Your task to perform on an android device: What's the weather? Image 0: 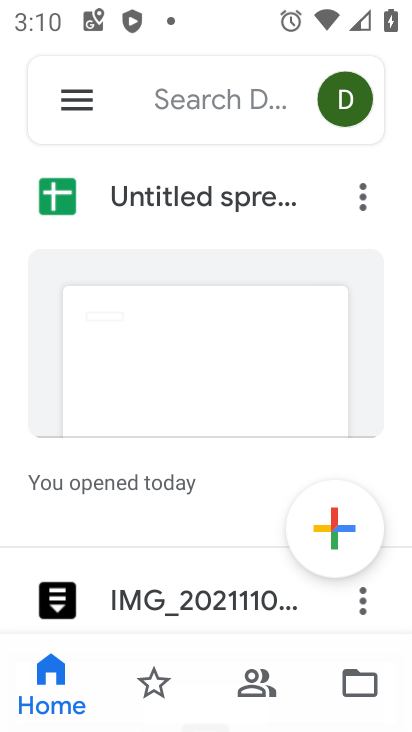
Step 0: press home button
Your task to perform on an android device: What's the weather? Image 1: 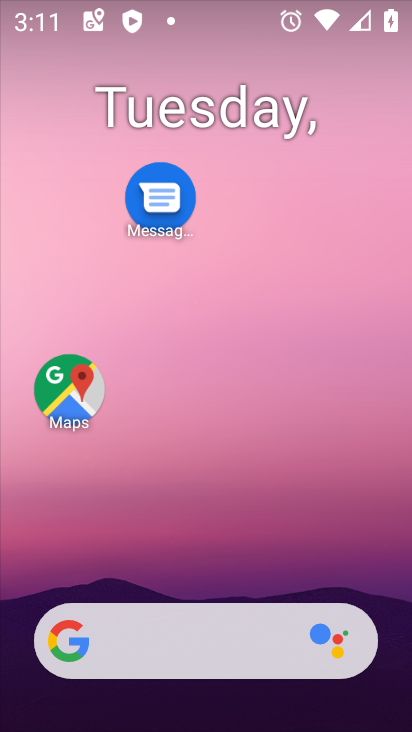
Step 1: drag from (156, 567) to (209, 72)
Your task to perform on an android device: What's the weather? Image 2: 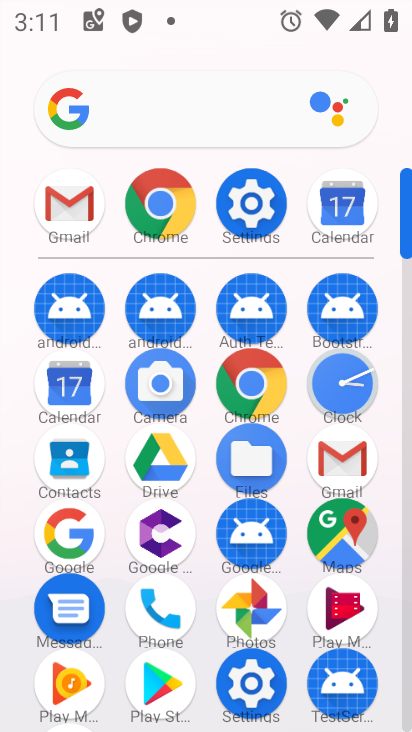
Step 2: click (71, 541)
Your task to perform on an android device: What's the weather? Image 3: 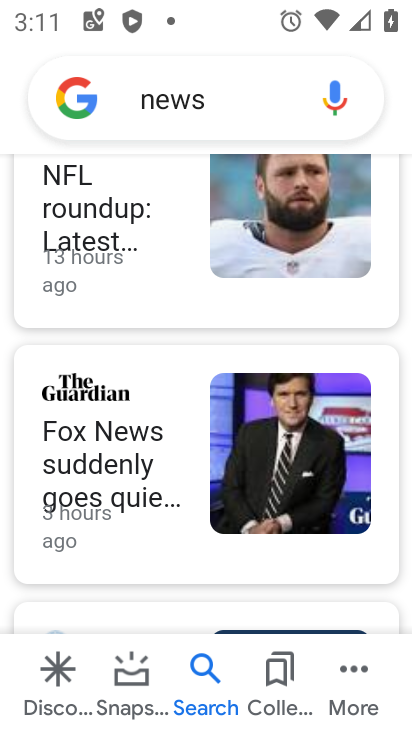
Step 3: click (242, 114)
Your task to perform on an android device: What's the weather? Image 4: 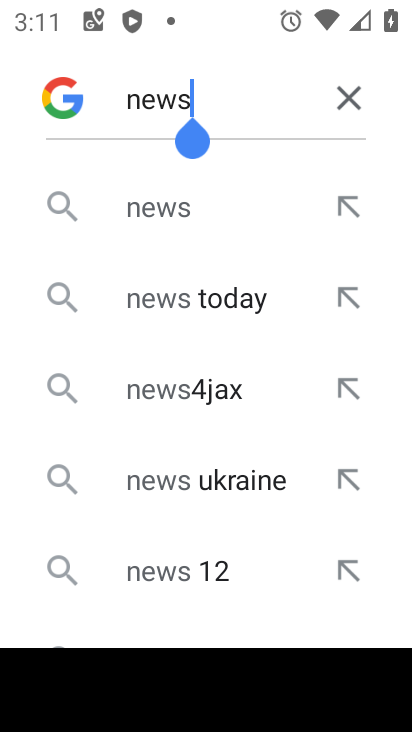
Step 4: click (342, 94)
Your task to perform on an android device: What's the weather? Image 5: 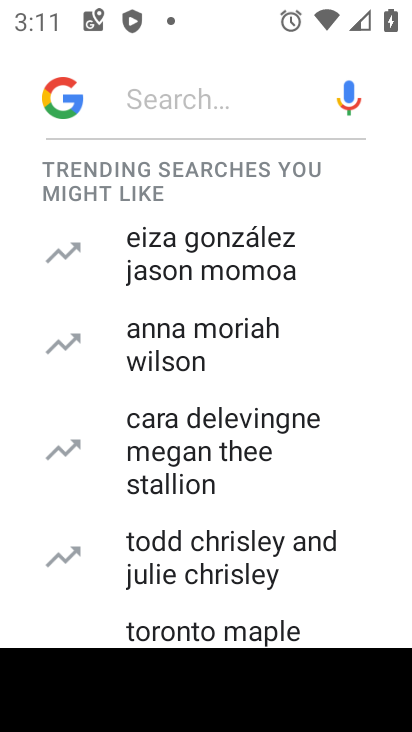
Step 5: type "weather"
Your task to perform on an android device: What's the weather? Image 6: 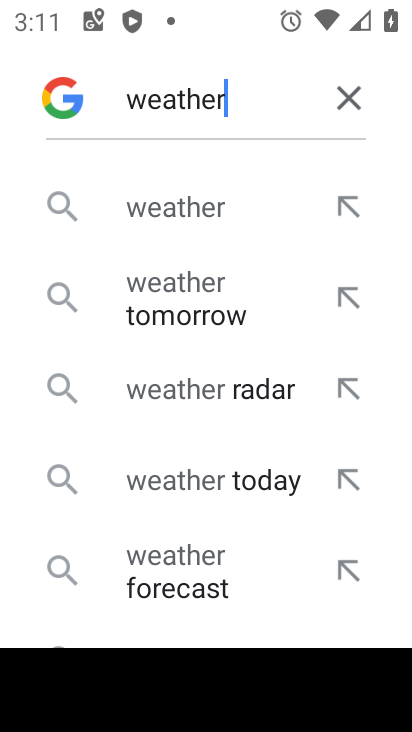
Step 6: click (148, 214)
Your task to perform on an android device: What's the weather? Image 7: 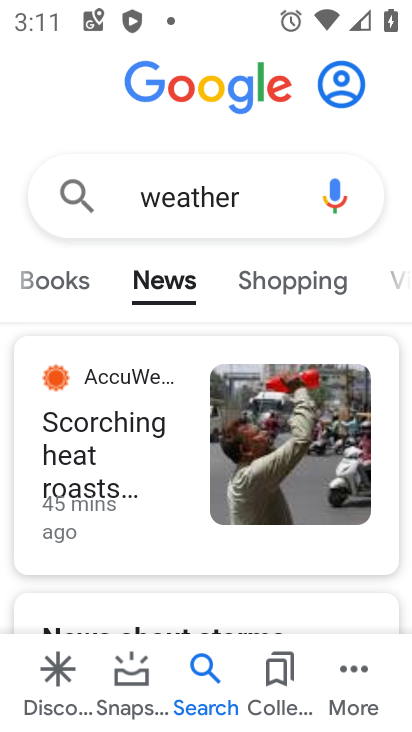
Step 7: drag from (58, 272) to (294, 275)
Your task to perform on an android device: What's the weather? Image 8: 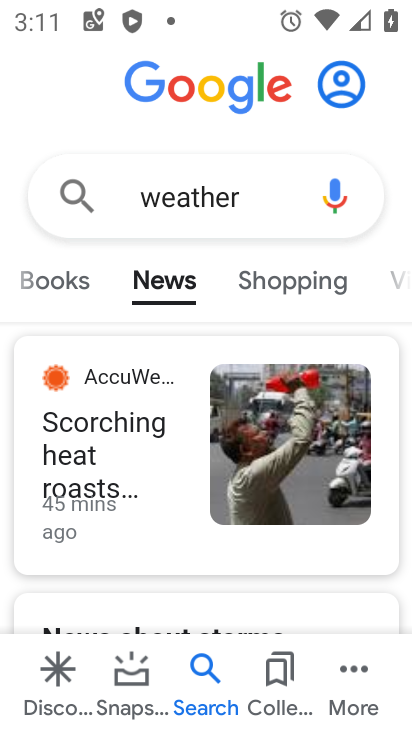
Step 8: drag from (46, 280) to (282, 287)
Your task to perform on an android device: What's the weather? Image 9: 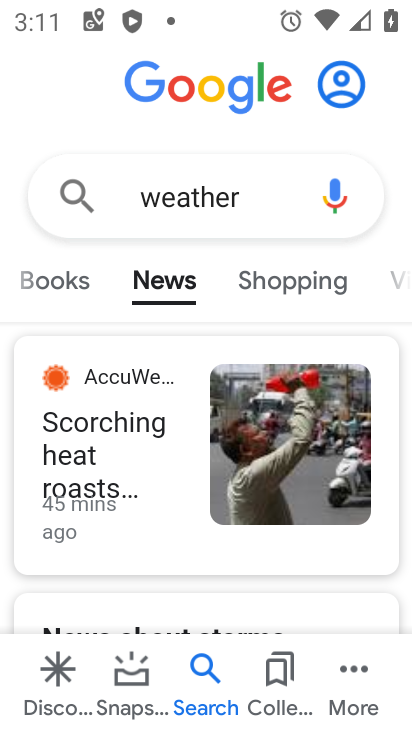
Step 9: drag from (51, 284) to (288, 286)
Your task to perform on an android device: What's the weather? Image 10: 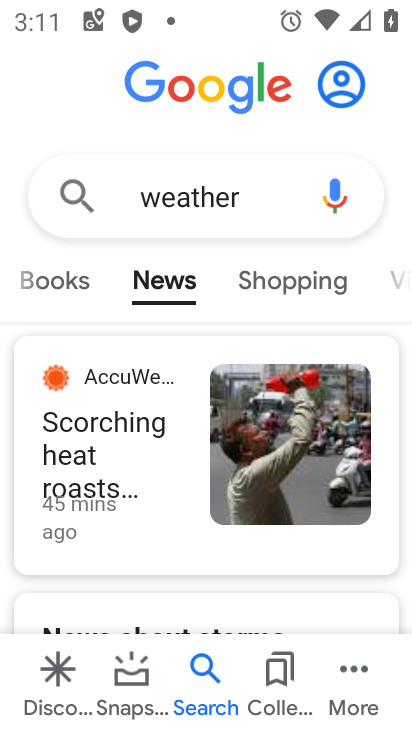
Step 10: drag from (217, 509) to (301, 315)
Your task to perform on an android device: What's the weather? Image 11: 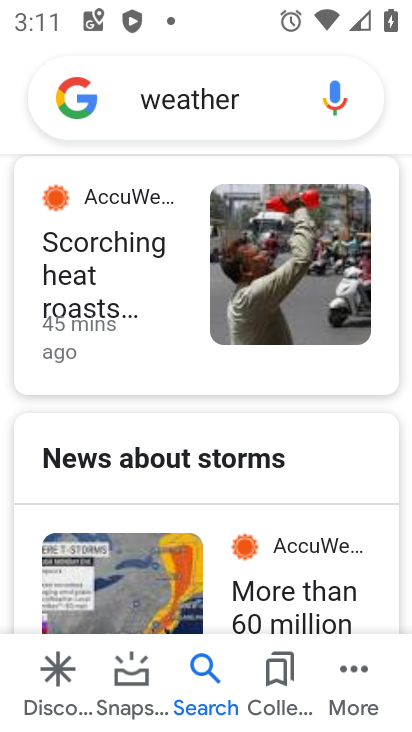
Step 11: drag from (192, 235) to (249, 582)
Your task to perform on an android device: What's the weather? Image 12: 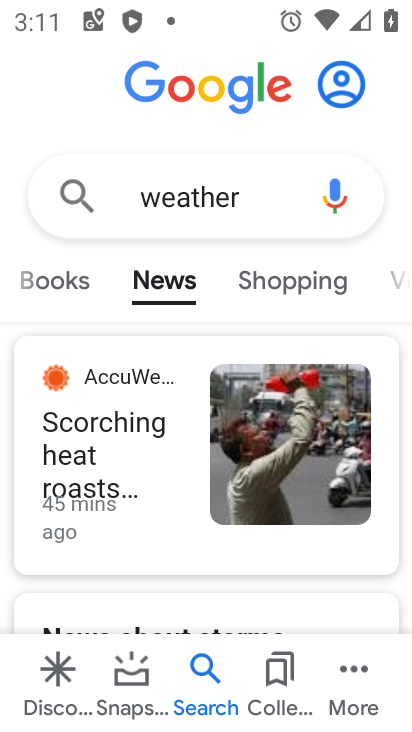
Step 12: click (77, 281)
Your task to perform on an android device: What's the weather? Image 13: 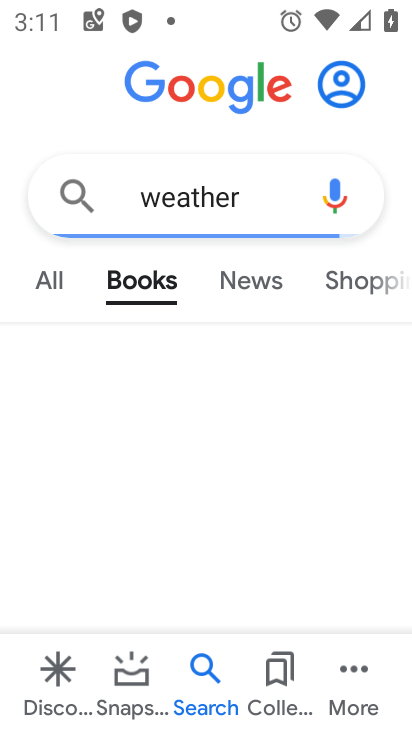
Step 13: click (56, 273)
Your task to perform on an android device: What's the weather? Image 14: 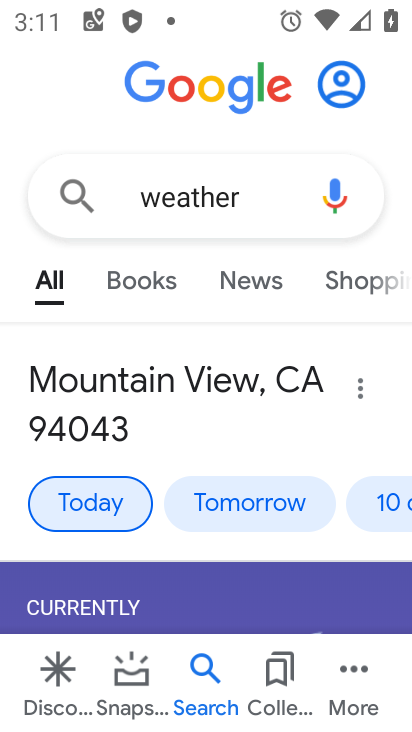
Step 14: task complete